Your task to perform on an android device: change the upload size in google photos Image 0: 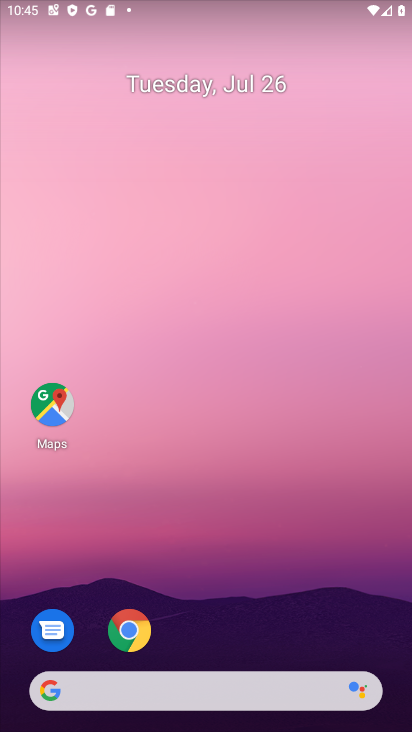
Step 0: drag from (207, 646) to (211, 127)
Your task to perform on an android device: change the upload size in google photos Image 1: 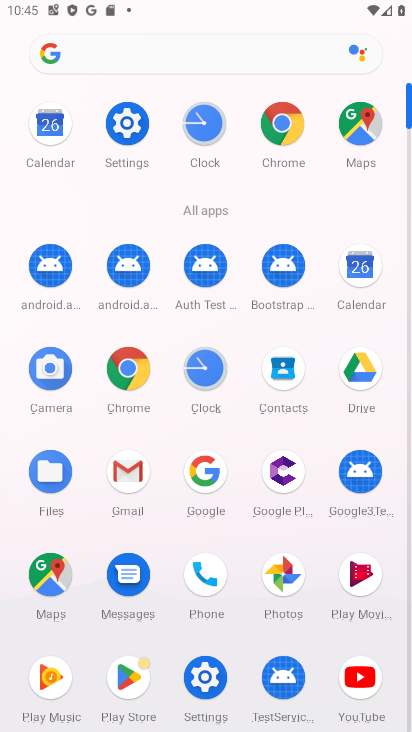
Step 1: click (294, 564)
Your task to perform on an android device: change the upload size in google photos Image 2: 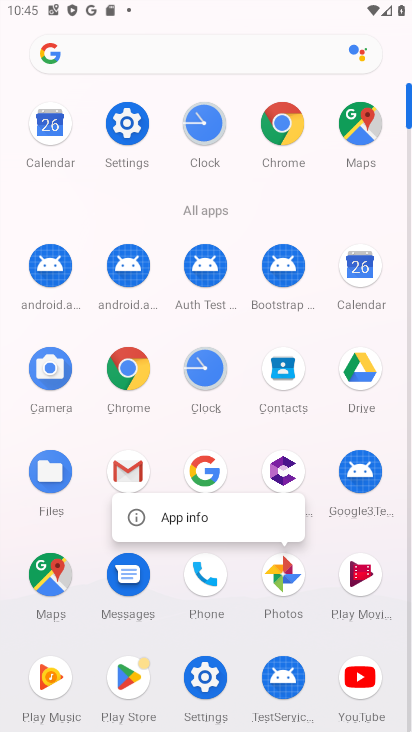
Step 2: click (294, 564)
Your task to perform on an android device: change the upload size in google photos Image 3: 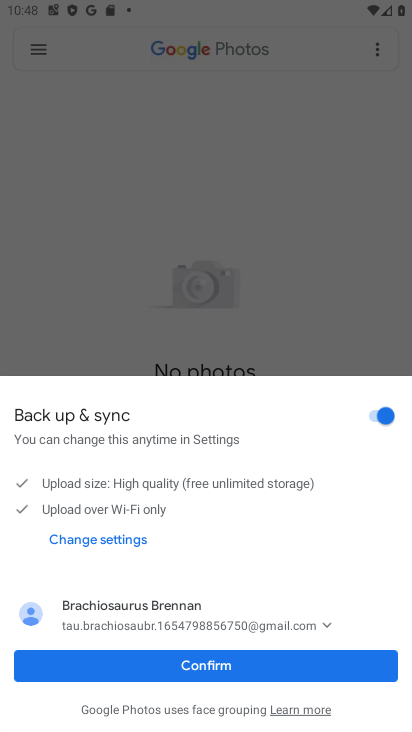
Step 3: click (308, 658)
Your task to perform on an android device: change the upload size in google photos Image 4: 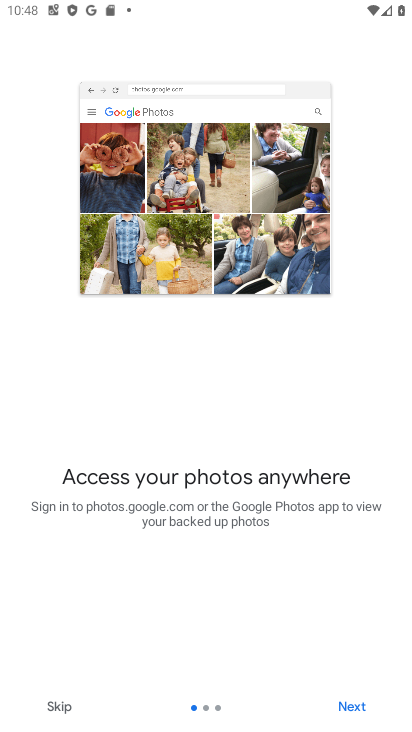
Step 4: click (361, 708)
Your task to perform on an android device: change the upload size in google photos Image 5: 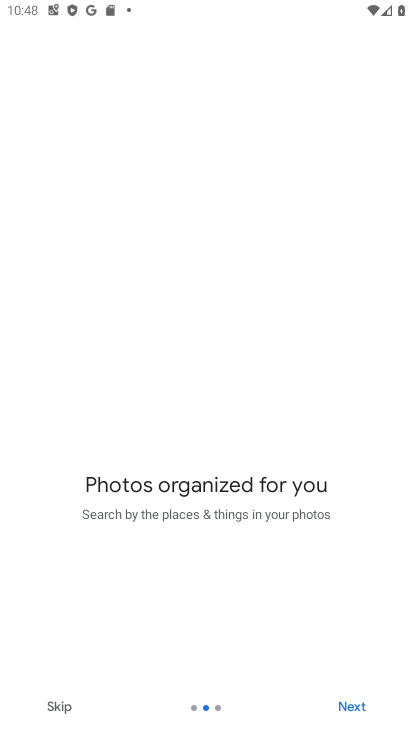
Step 5: click (363, 701)
Your task to perform on an android device: change the upload size in google photos Image 6: 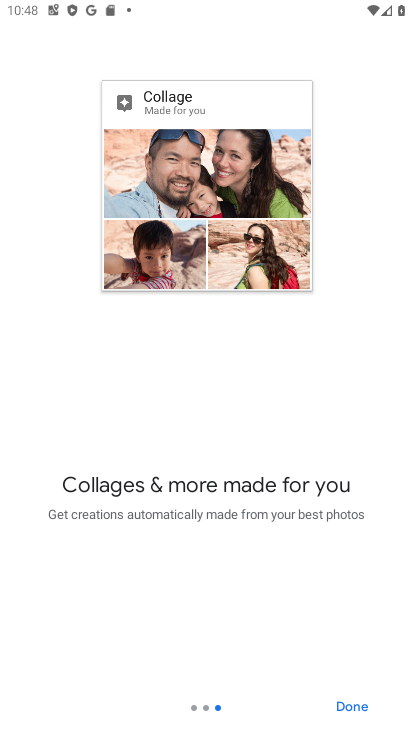
Step 6: click (363, 701)
Your task to perform on an android device: change the upload size in google photos Image 7: 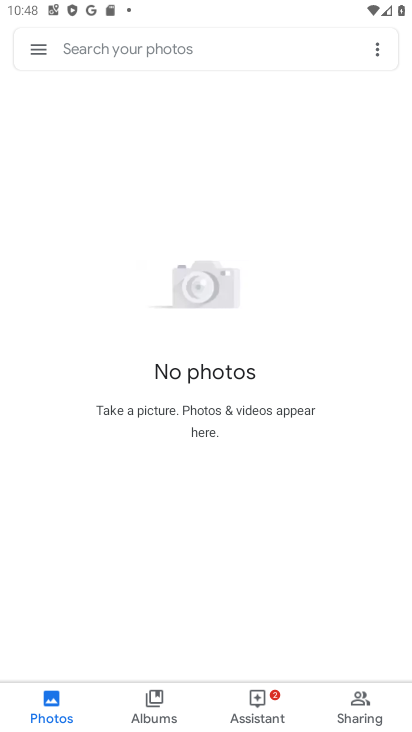
Step 7: click (40, 59)
Your task to perform on an android device: change the upload size in google photos Image 8: 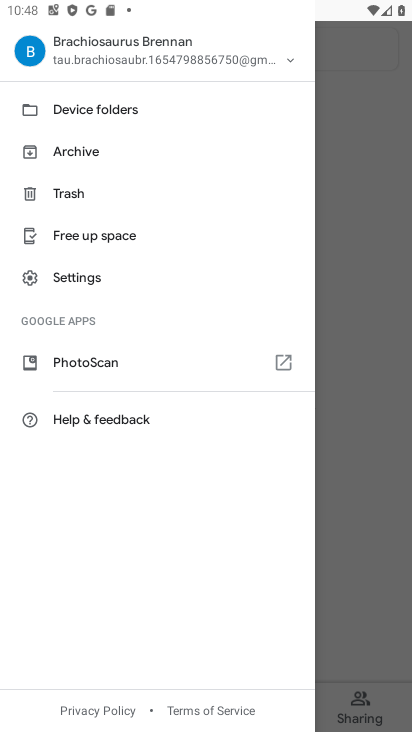
Step 8: click (120, 275)
Your task to perform on an android device: change the upload size in google photos Image 9: 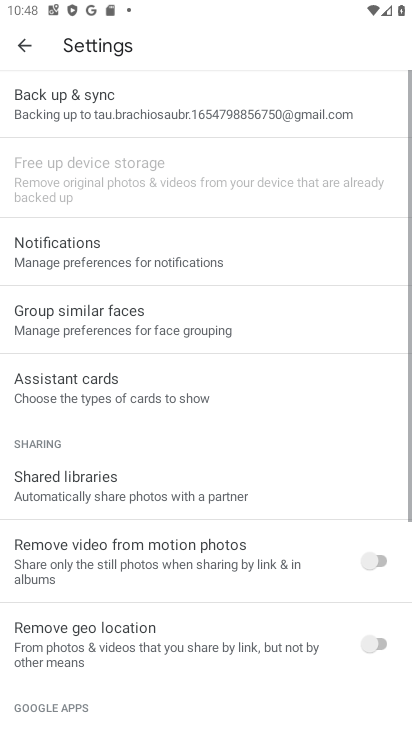
Step 9: click (216, 115)
Your task to perform on an android device: change the upload size in google photos Image 10: 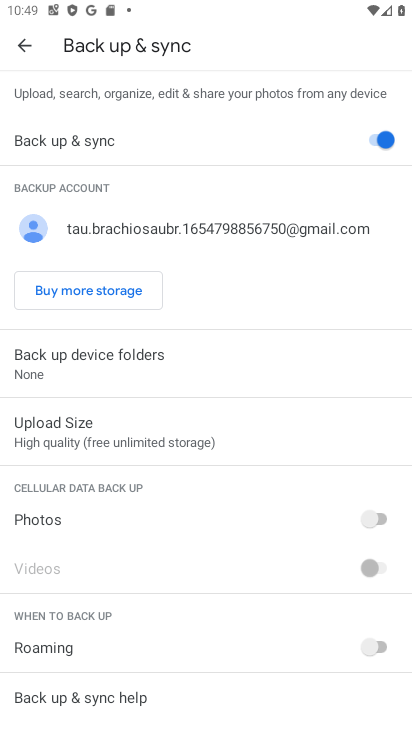
Step 10: click (101, 447)
Your task to perform on an android device: change the upload size in google photos Image 11: 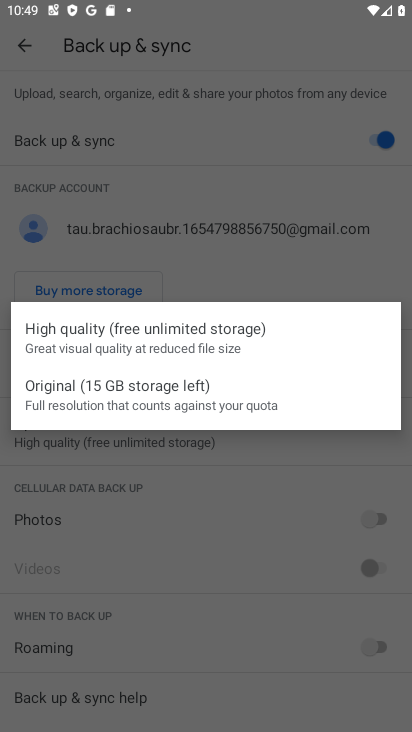
Step 11: click (143, 393)
Your task to perform on an android device: change the upload size in google photos Image 12: 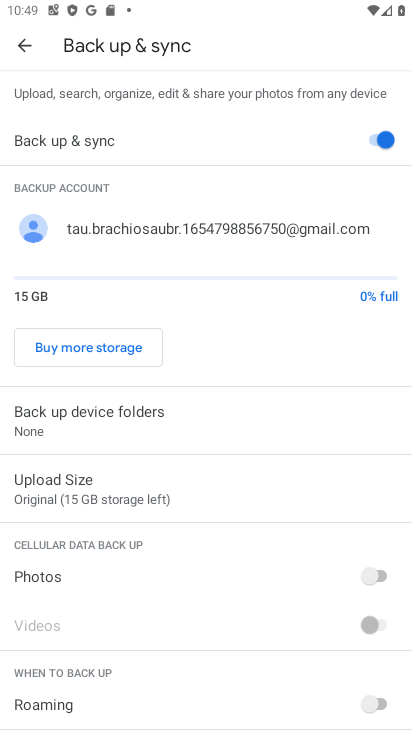
Step 12: task complete